Your task to perform on an android device: toggle sleep mode Image 0: 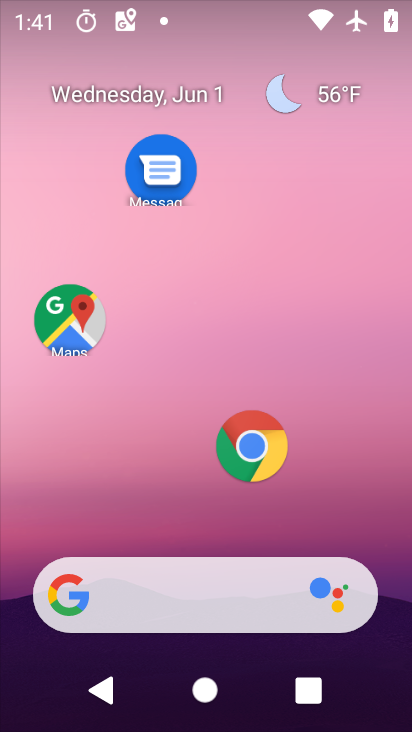
Step 0: drag from (213, 473) to (294, 87)
Your task to perform on an android device: toggle sleep mode Image 1: 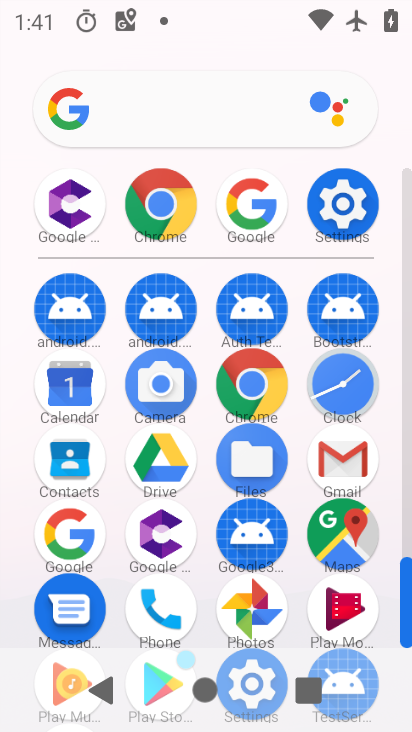
Step 1: drag from (215, 263) to (213, 121)
Your task to perform on an android device: toggle sleep mode Image 2: 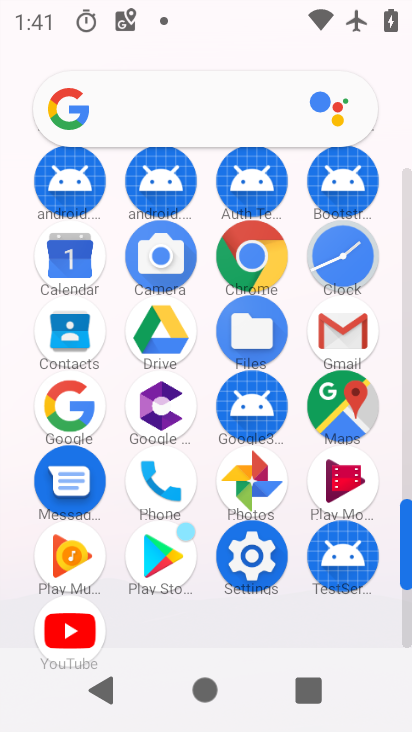
Step 2: click (249, 575)
Your task to perform on an android device: toggle sleep mode Image 3: 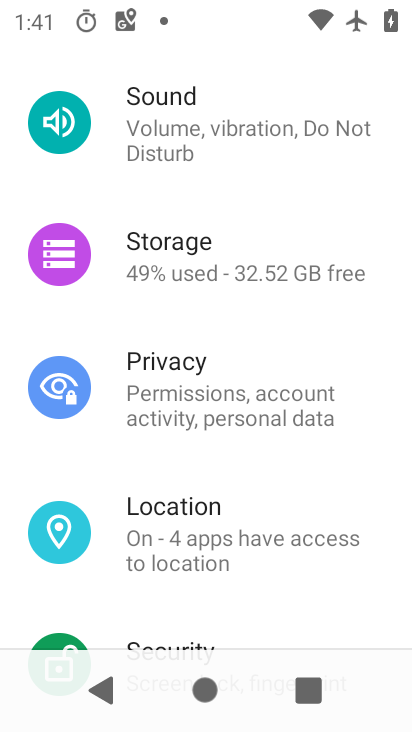
Step 3: task complete